Your task to perform on an android device: Check the weather Image 0: 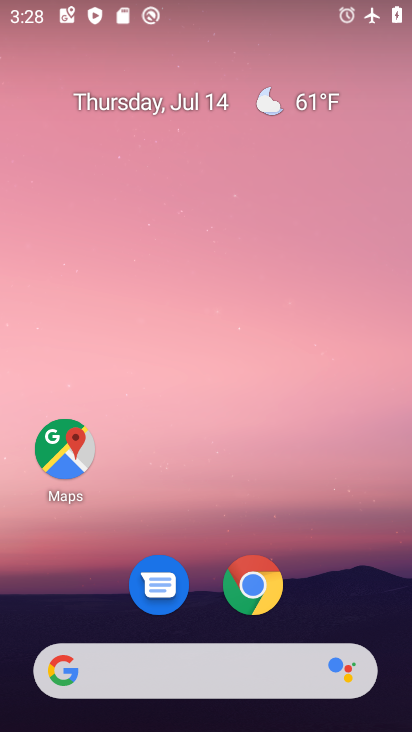
Step 0: click (220, 667)
Your task to perform on an android device: Check the weather Image 1: 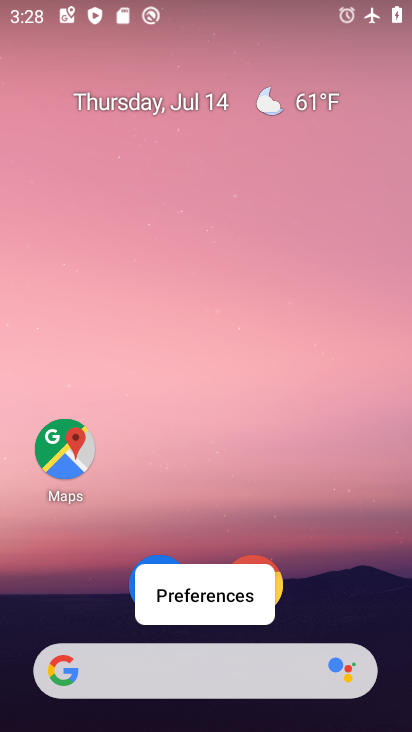
Step 1: click (220, 668)
Your task to perform on an android device: Check the weather Image 2: 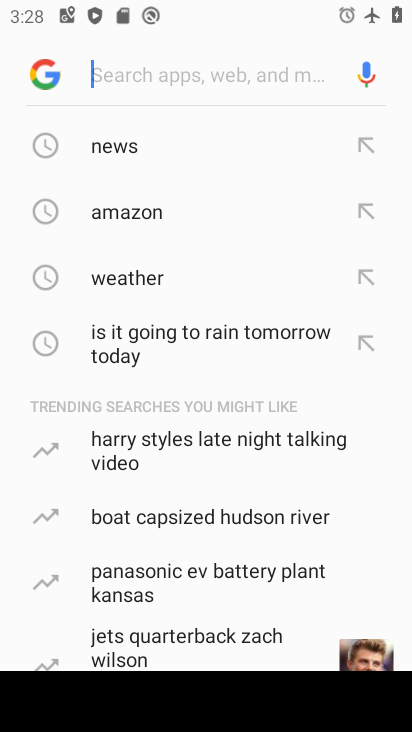
Step 2: click (126, 276)
Your task to perform on an android device: Check the weather Image 3: 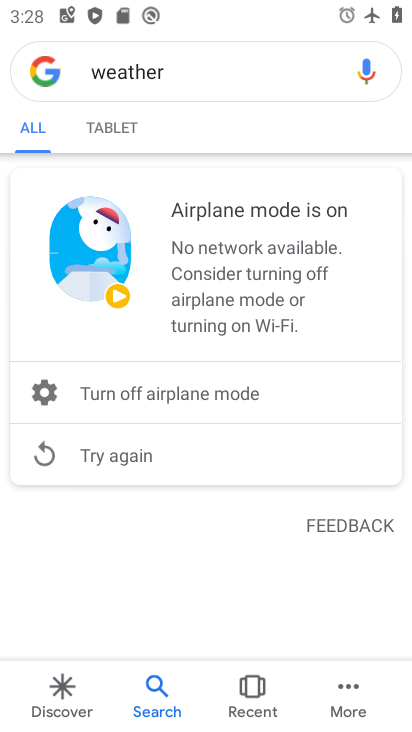
Step 3: click (206, 387)
Your task to perform on an android device: Check the weather Image 4: 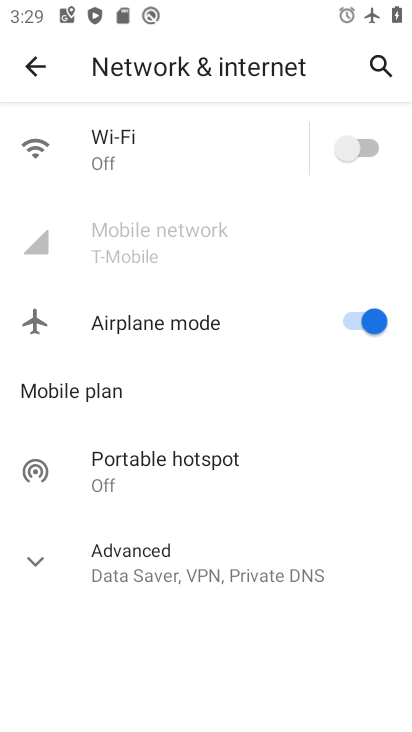
Step 4: click (361, 318)
Your task to perform on an android device: Check the weather Image 5: 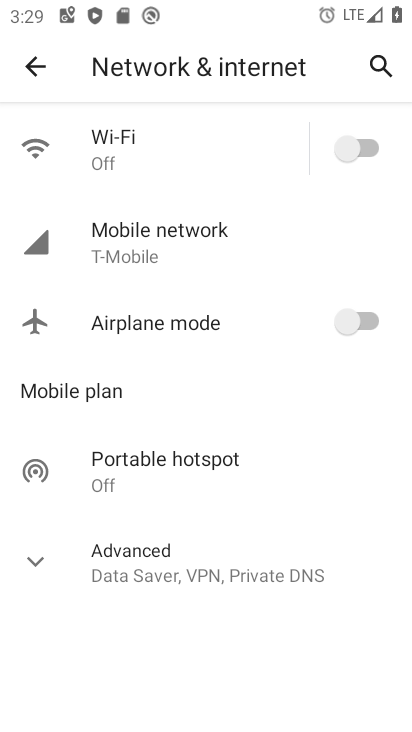
Step 5: click (42, 62)
Your task to perform on an android device: Check the weather Image 6: 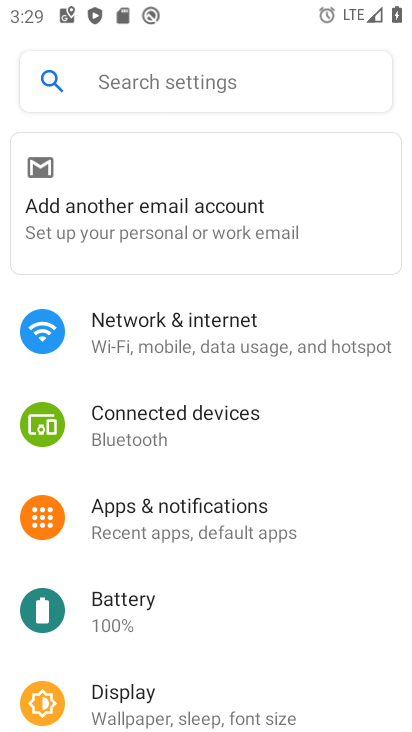
Step 6: task complete